Your task to perform on an android device: toggle notifications settings in the gmail app Image 0: 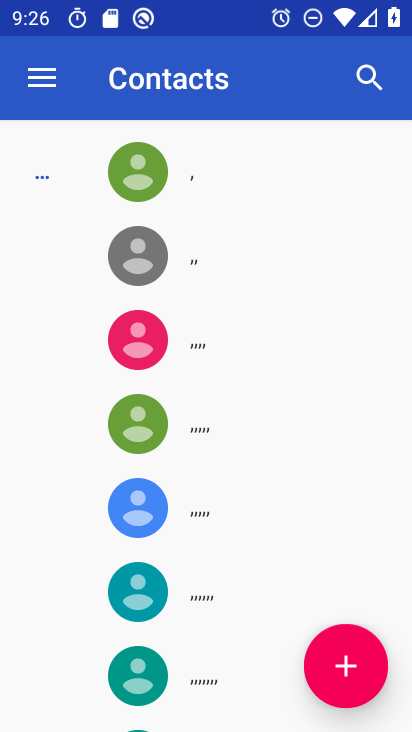
Step 0: press home button
Your task to perform on an android device: toggle notifications settings in the gmail app Image 1: 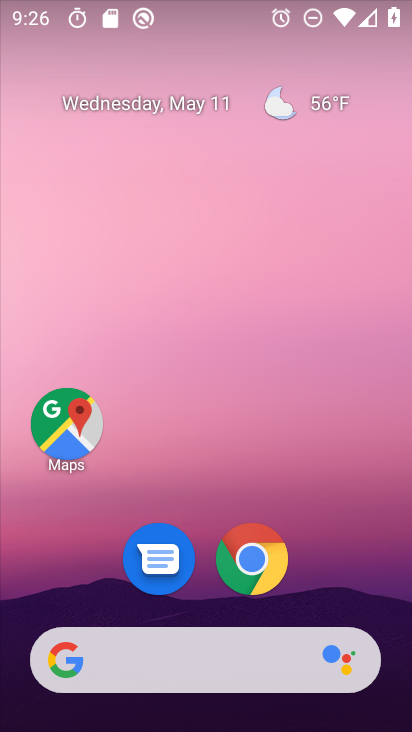
Step 1: drag from (260, 464) to (266, 221)
Your task to perform on an android device: toggle notifications settings in the gmail app Image 2: 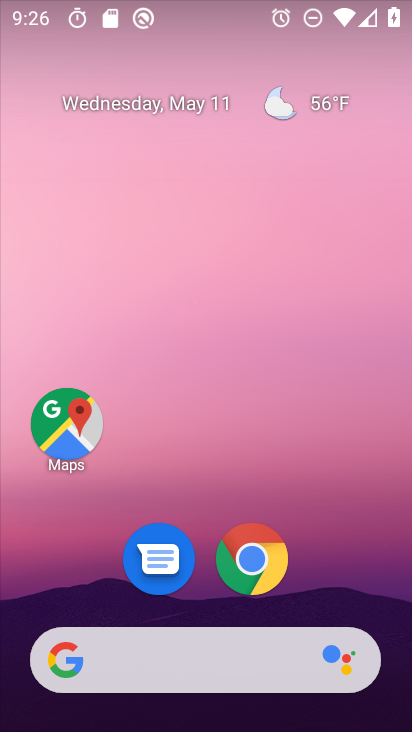
Step 2: drag from (250, 465) to (263, 174)
Your task to perform on an android device: toggle notifications settings in the gmail app Image 3: 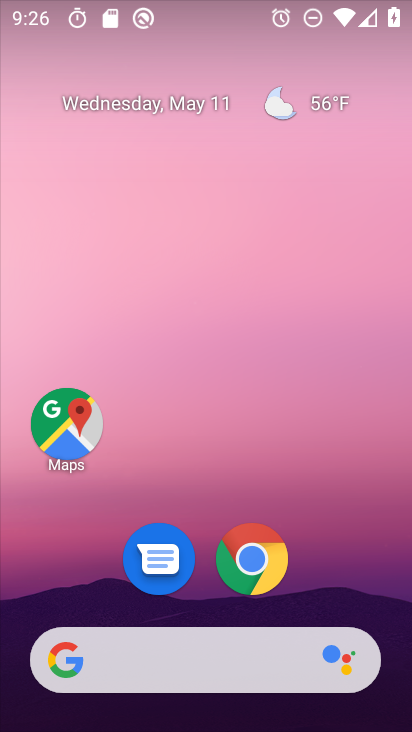
Step 3: drag from (334, 574) to (312, 284)
Your task to perform on an android device: toggle notifications settings in the gmail app Image 4: 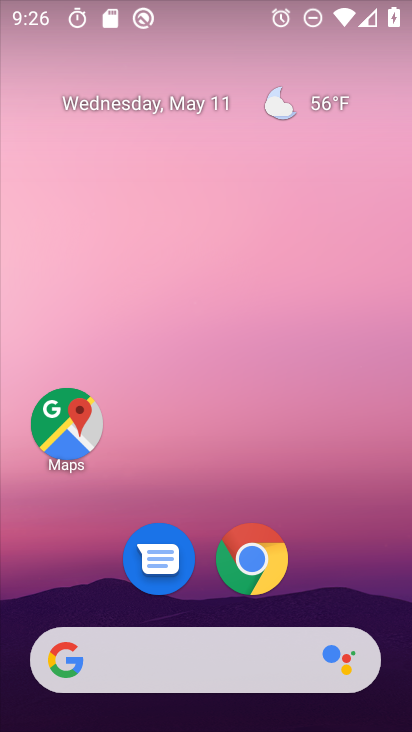
Step 4: drag from (319, 534) to (203, 192)
Your task to perform on an android device: toggle notifications settings in the gmail app Image 5: 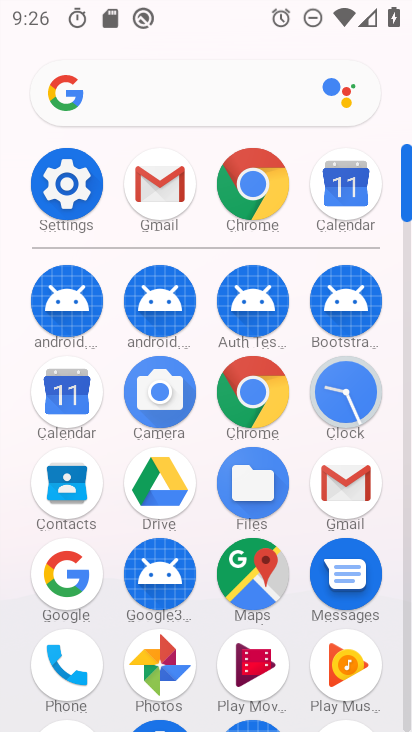
Step 5: click (171, 187)
Your task to perform on an android device: toggle notifications settings in the gmail app Image 6: 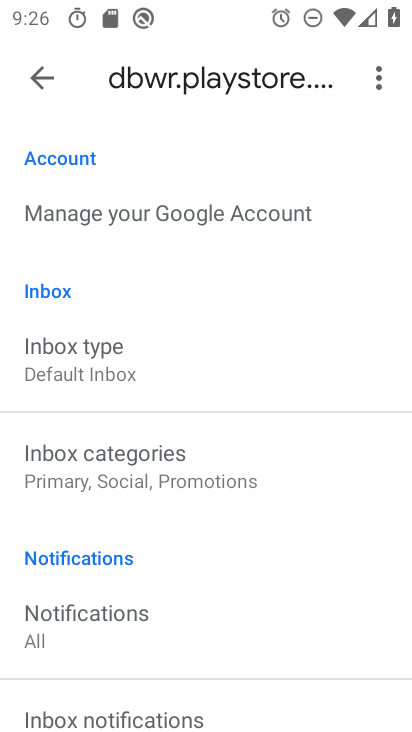
Step 6: drag from (293, 657) to (285, 382)
Your task to perform on an android device: toggle notifications settings in the gmail app Image 7: 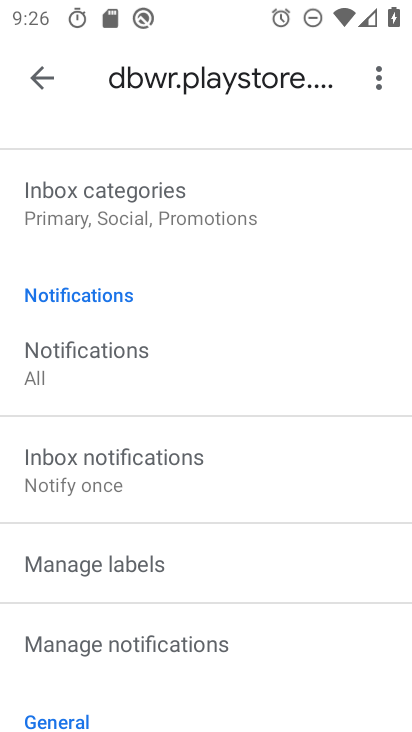
Step 7: click (128, 455)
Your task to perform on an android device: toggle notifications settings in the gmail app Image 8: 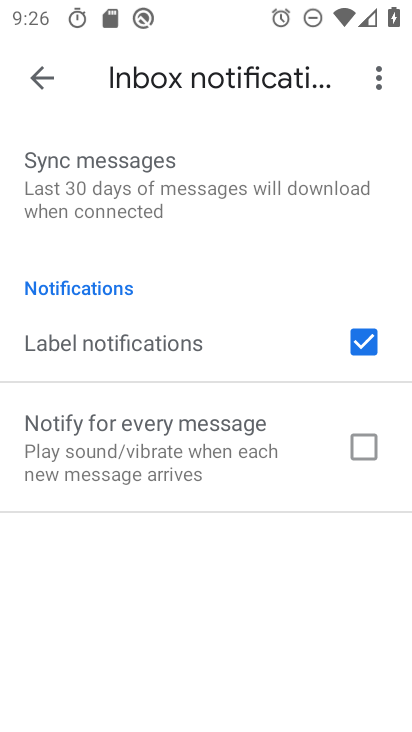
Step 8: click (363, 451)
Your task to perform on an android device: toggle notifications settings in the gmail app Image 9: 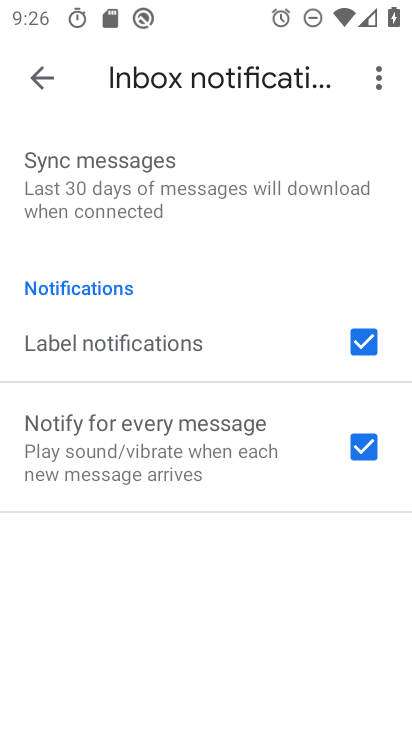
Step 9: task complete